Your task to perform on an android device: Go to Yahoo.com Image 0: 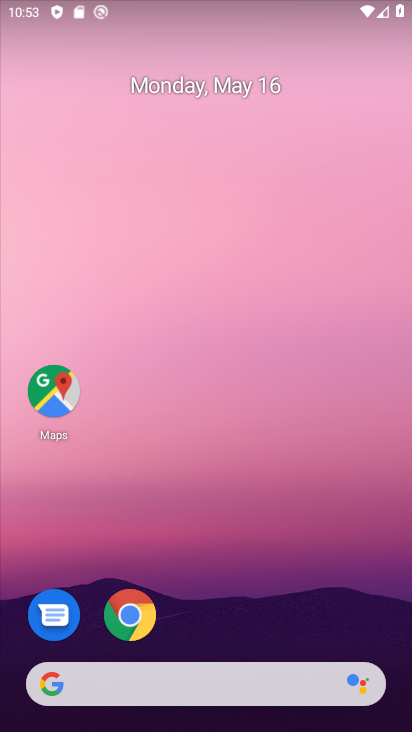
Step 0: click (144, 615)
Your task to perform on an android device: Go to Yahoo.com Image 1: 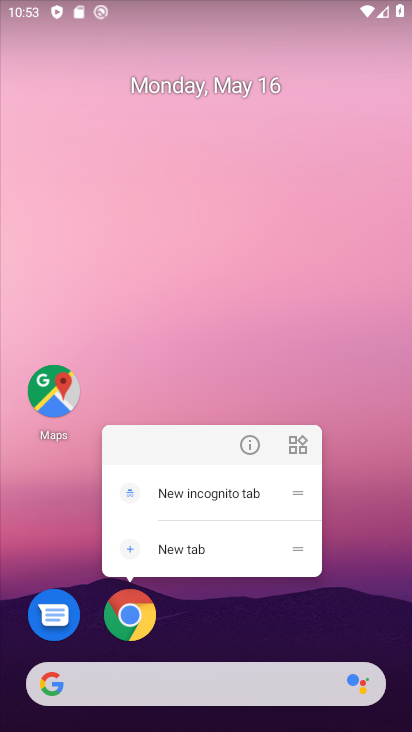
Step 1: click (137, 619)
Your task to perform on an android device: Go to Yahoo.com Image 2: 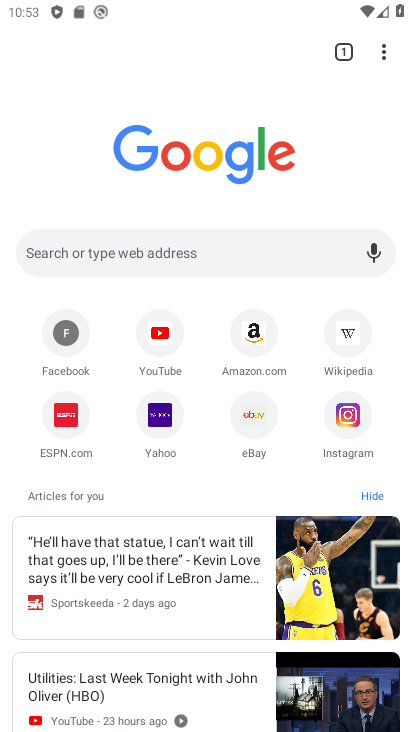
Step 2: click (140, 242)
Your task to perform on an android device: Go to Yahoo.com Image 3: 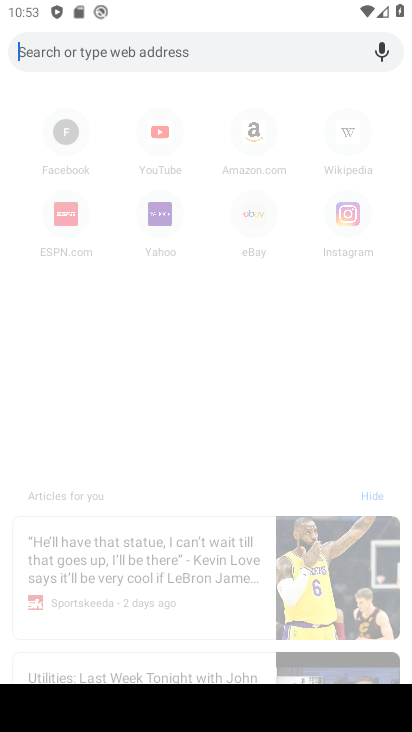
Step 3: type "Yahoo.com"
Your task to perform on an android device: Go to Yahoo.com Image 4: 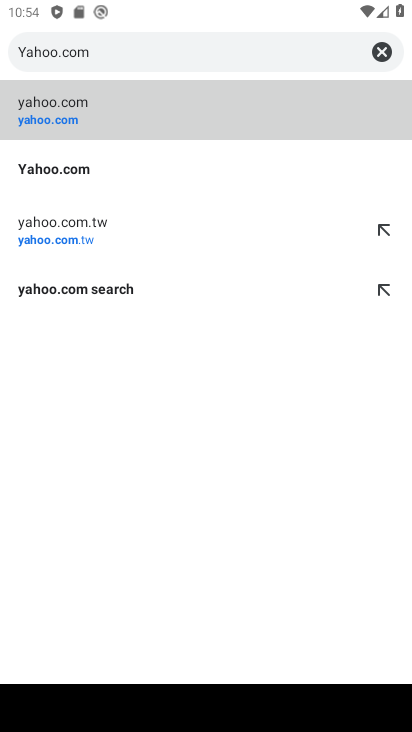
Step 4: click (37, 124)
Your task to perform on an android device: Go to Yahoo.com Image 5: 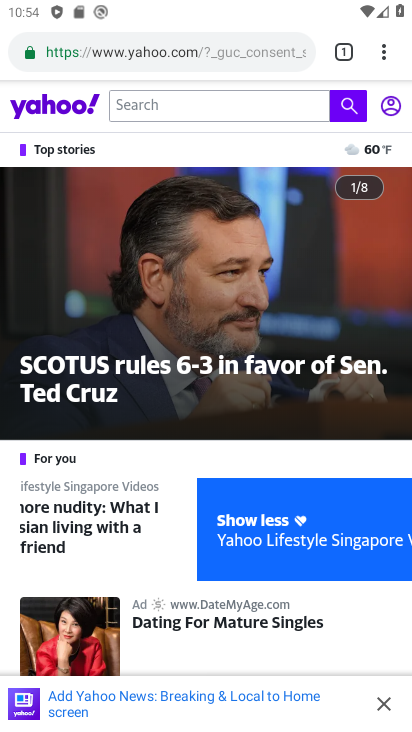
Step 5: task complete